Your task to perform on an android device: turn on wifi Image 0: 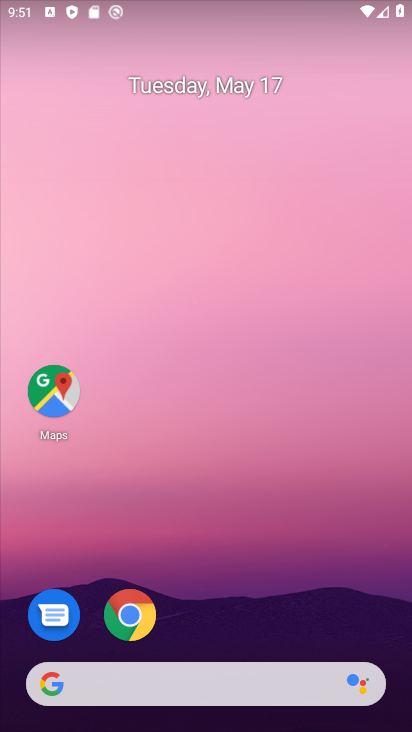
Step 0: drag from (393, 648) to (315, 114)
Your task to perform on an android device: turn on wifi Image 1: 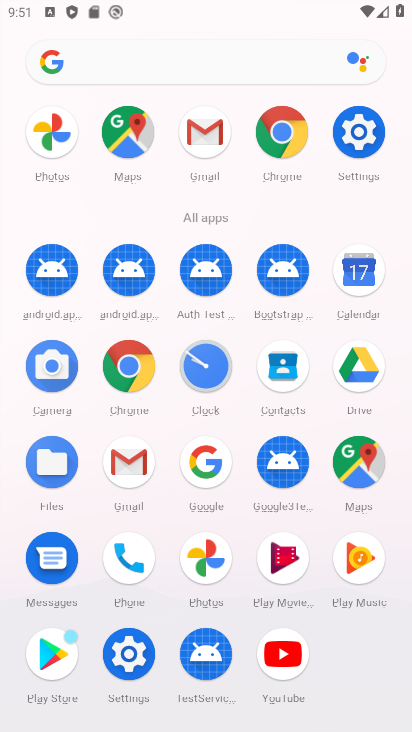
Step 1: click (129, 659)
Your task to perform on an android device: turn on wifi Image 2: 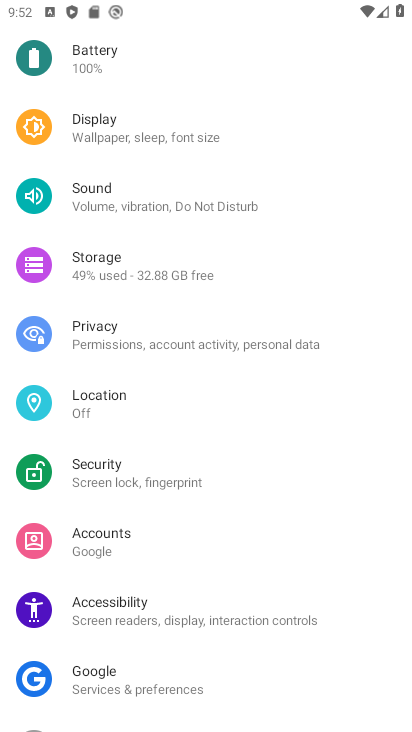
Step 2: drag from (322, 73) to (290, 418)
Your task to perform on an android device: turn on wifi Image 3: 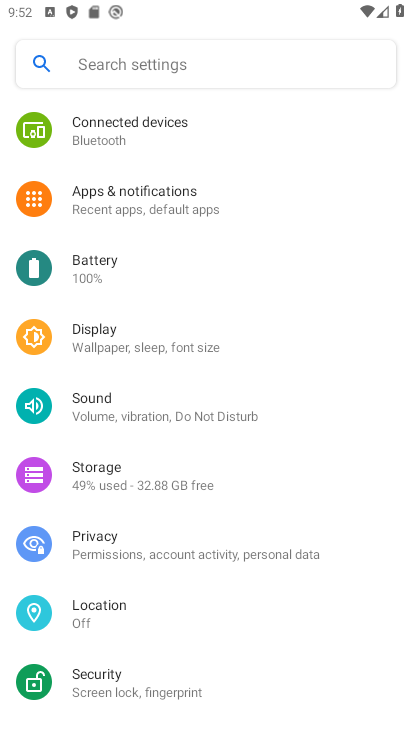
Step 3: drag from (305, 128) to (289, 383)
Your task to perform on an android device: turn on wifi Image 4: 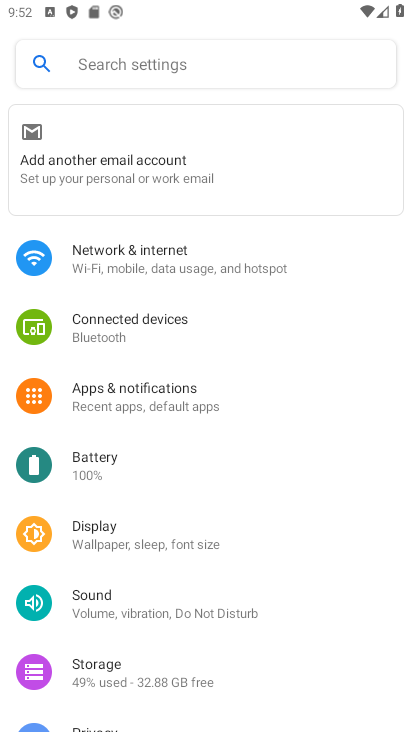
Step 4: click (110, 251)
Your task to perform on an android device: turn on wifi Image 5: 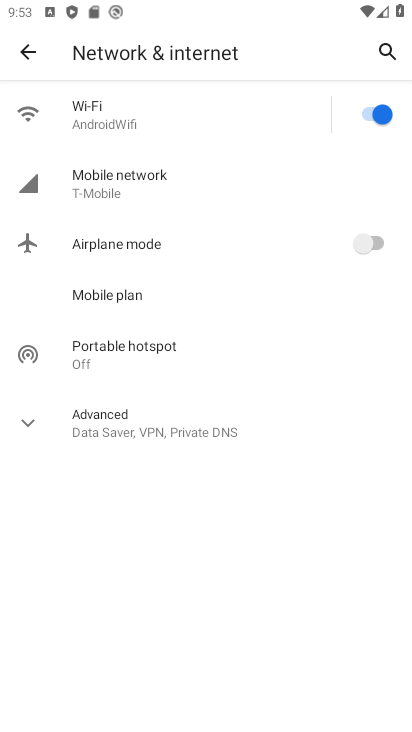
Step 5: task complete